Your task to perform on an android device: Open ESPN.com Image 0: 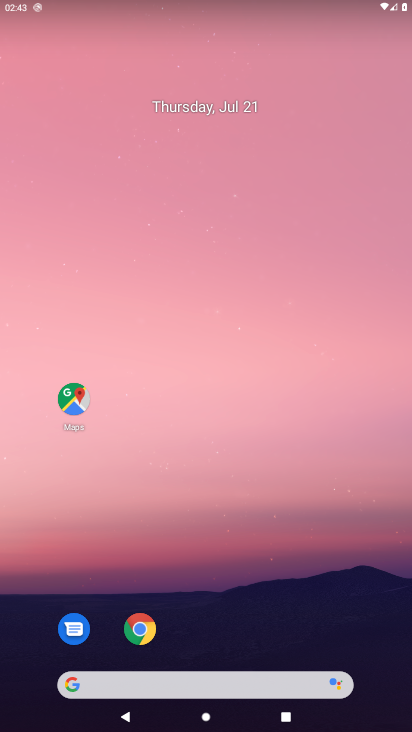
Step 0: click (110, 678)
Your task to perform on an android device: Open ESPN.com Image 1: 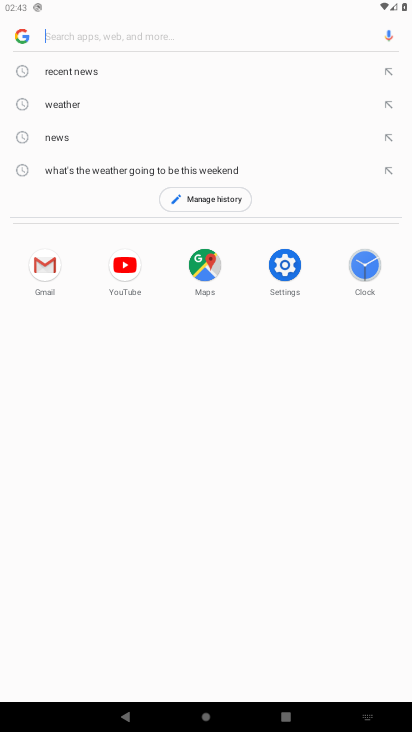
Step 1: type " ESPN.com"
Your task to perform on an android device: Open ESPN.com Image 2: 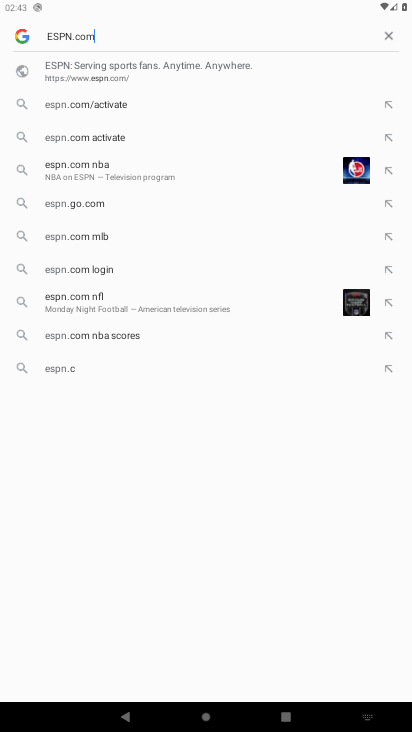
Step 2: type ""
Your task to perform on an android device: Open ESPN.com Image 3: 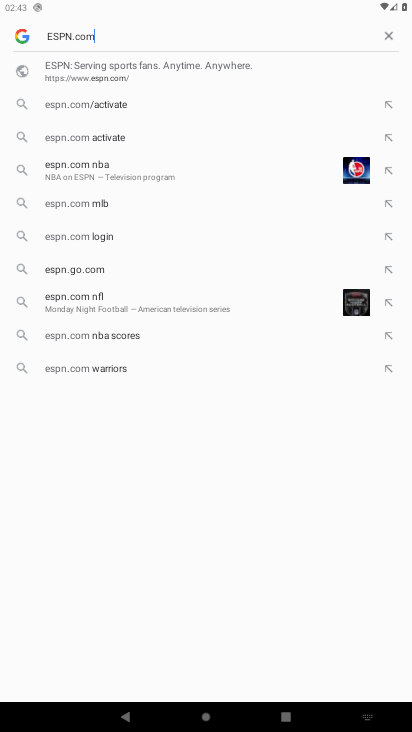
Step 3: click (80, 65)
Your task to perform on an android device: Open ESPN.com Image 4: 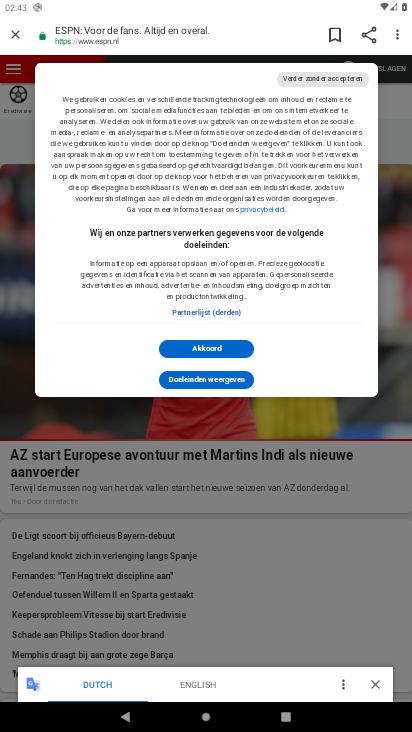
Step 4: task complete